Your task to perform on an android device: Toggle the flashlight Image 0: 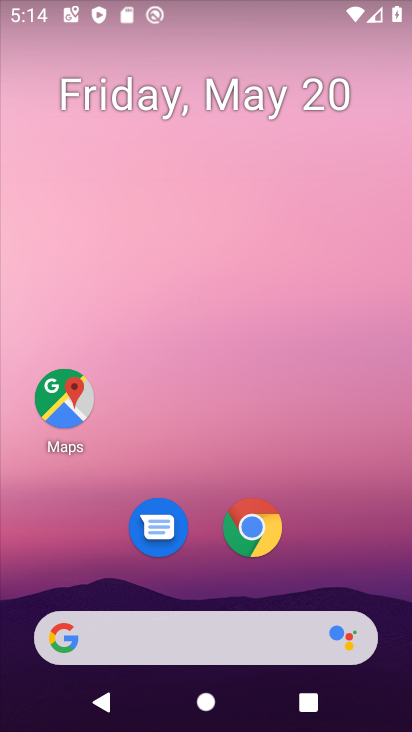
Step 0: drag from (343, 593) to (355, 54)
Your task to perform on an android device: Toggle the flashlight Image 1: 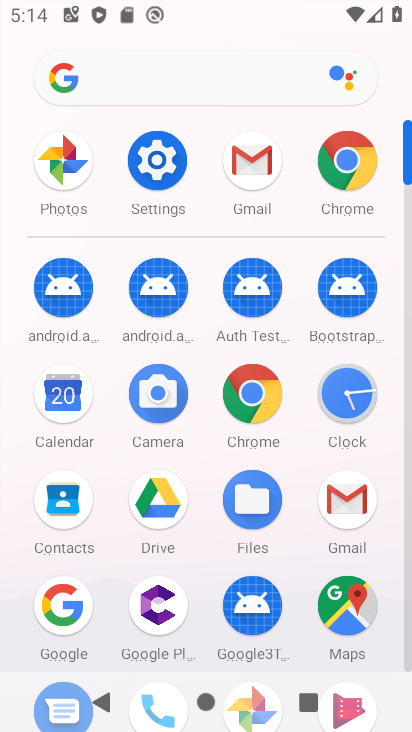
Step 1: click (169, 159)
Your task to perform on an android device: Toggle the flashlight Image 2: 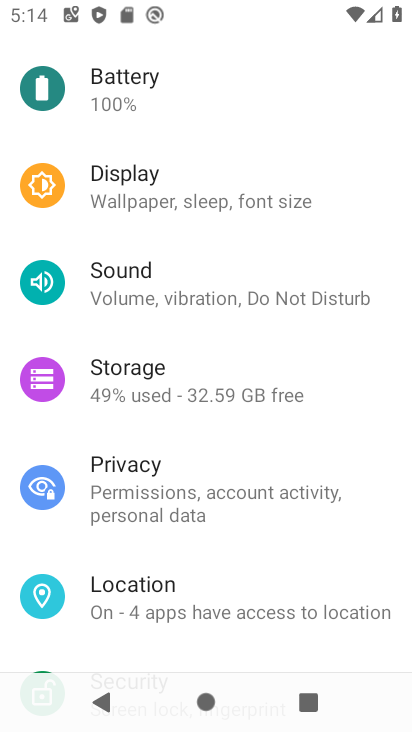
Step 2: task complete